Your task to perform on an android device: What's on my calendar today? Image 0: 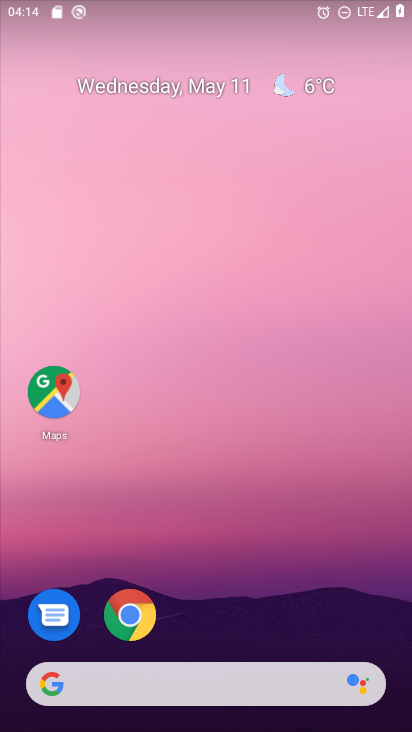
Step 0: drag from (280, 149) to (286, 79)
Your task to perform on an android device: What's on my calendar today? Image 1: 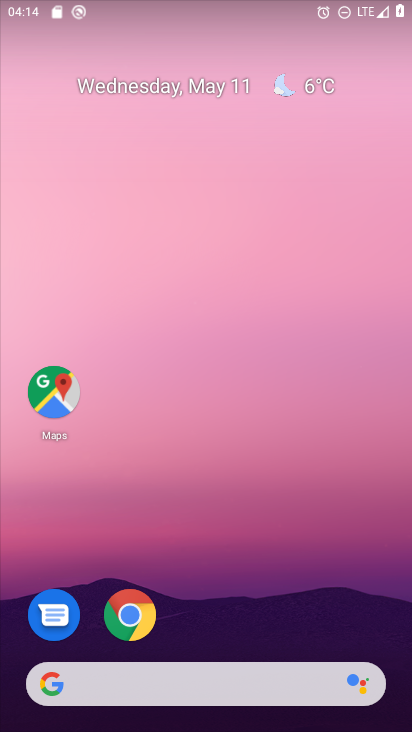
Step 1: drag from (288, 585) to (311, 96)
Your task to perform on an android device: What's on my calendar today? Image 2: 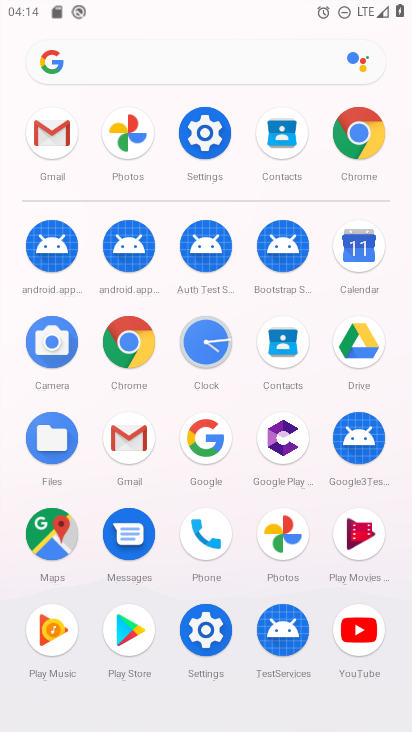
Step 2: click (355, 254)
Your task to perform on an android device: What's on my calendar today? Image 3: 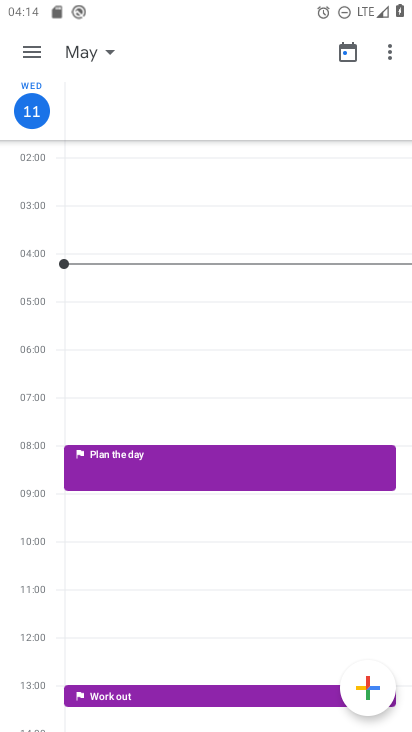
Step 3: task complete